Your task to perform on an android device: Open my contact list Image 0: 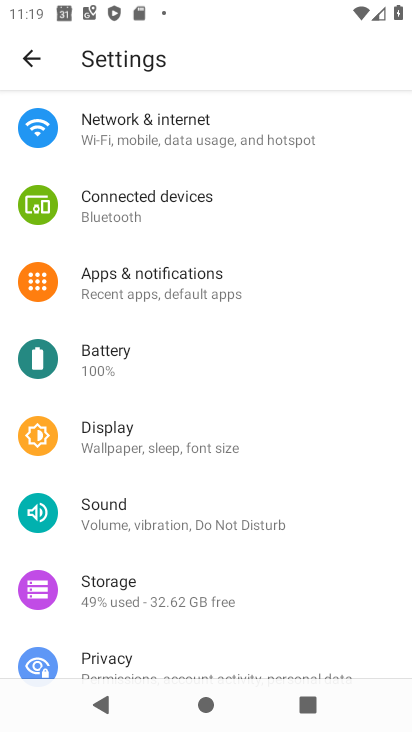
Step 0: press home button
Your task to perform on an android device: Open my contact list Image 1: 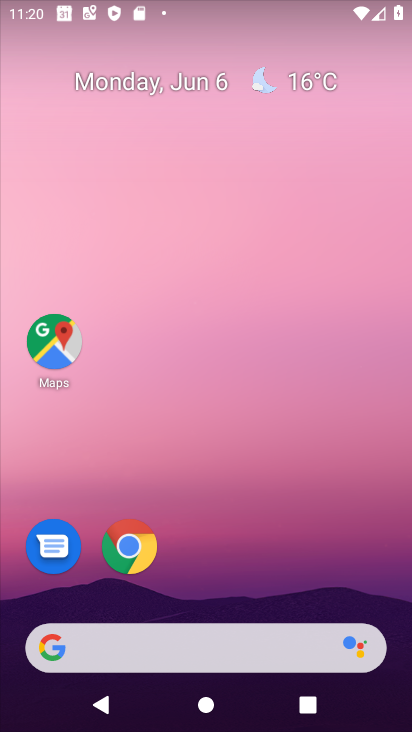
Step 1: drag from (277, 498) to (273, 141)
Your task to perform on an android device: Open my contact list Image 2: 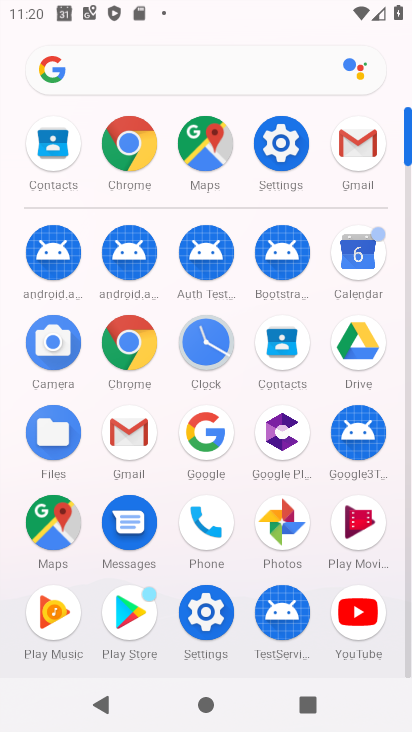
Step 2: click (58, 157)
Your task to perform on an android device: Open my contact list Image 3: 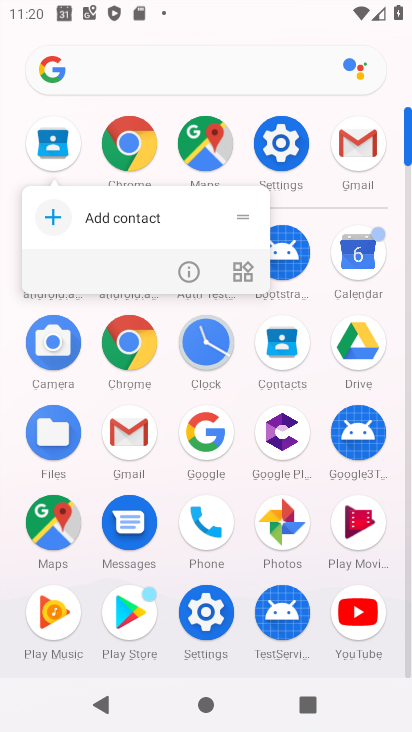
Step 3: click (62, 151)
Your task to perform on an android device: Open my contact list Image 4: 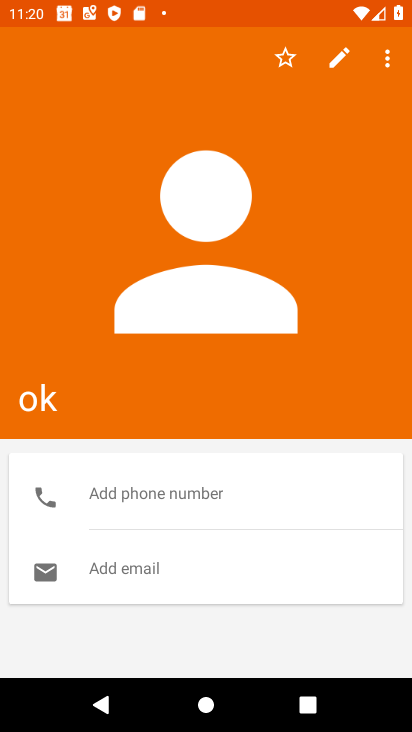
Step 4: task complete